Your task to perform on an android device: Turn off the flashlight Image 0: 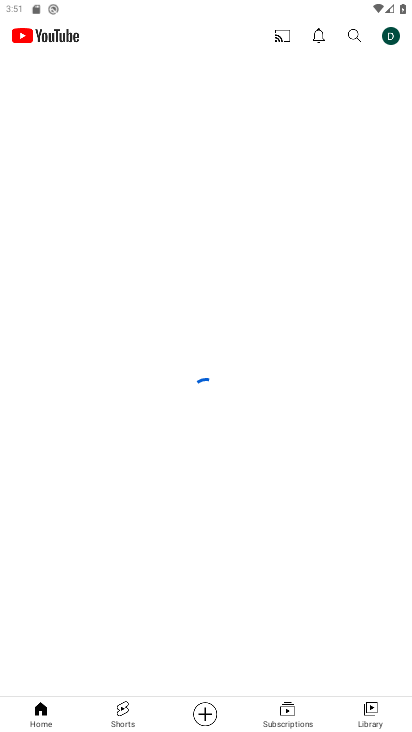
Step 0: press home button
Your task to perform on an android device: Turn off the flashlight Image 1: 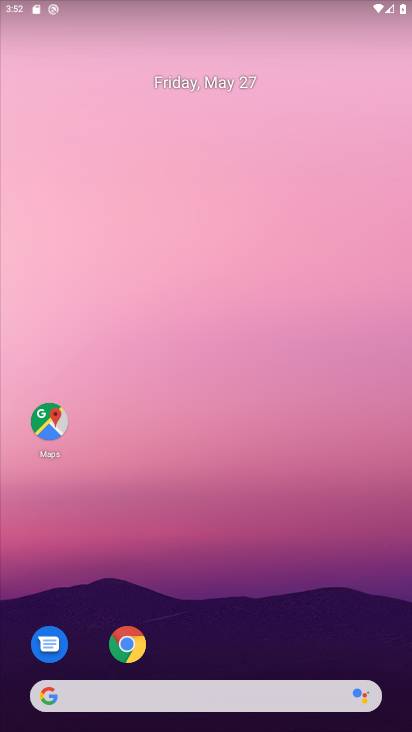
Step 1: task complete